Your task to perform on an android device: change the clock style Image 0: 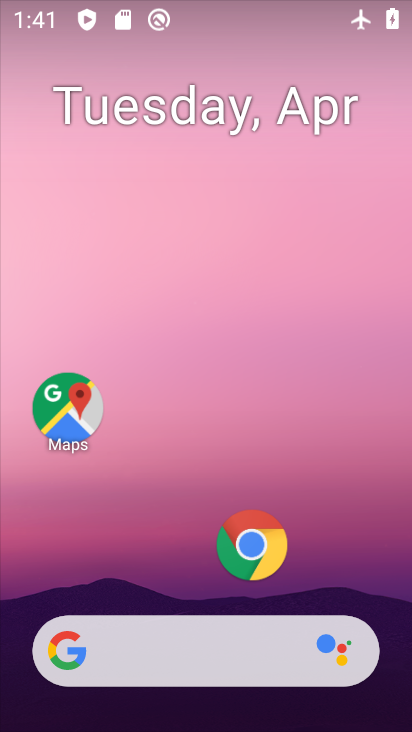
Step 0: drag from (167, 569) to (271, 227)
Your task to perform on an android device: change the clock style Image 1: 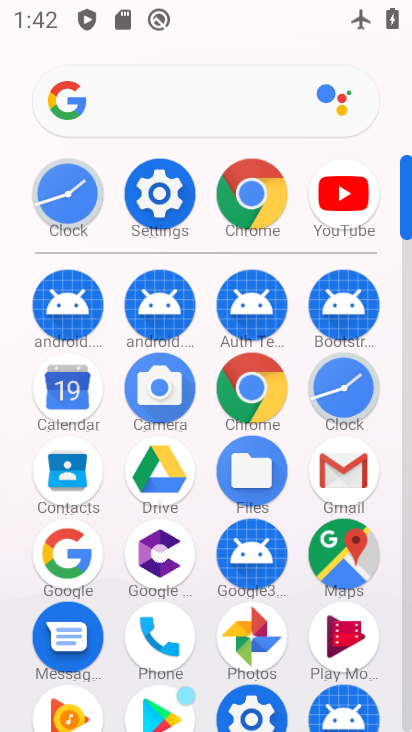
Step 1: click (342, 386)
Your task to perform on an android device: change the clock style Image 2: 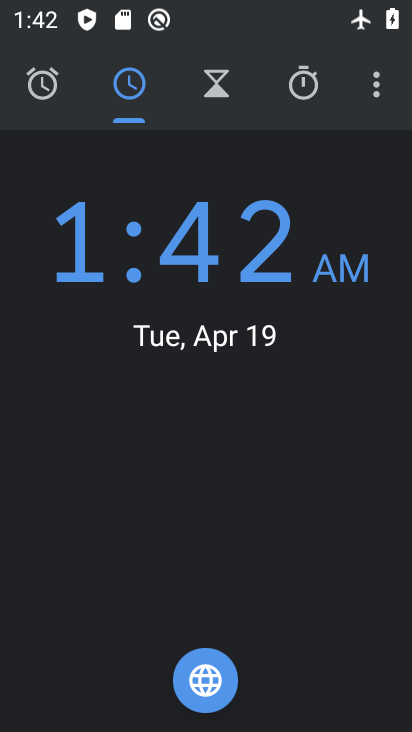
Step 2: click (381, 90)
Your task to perform on an android device: change the clock style Image 3: 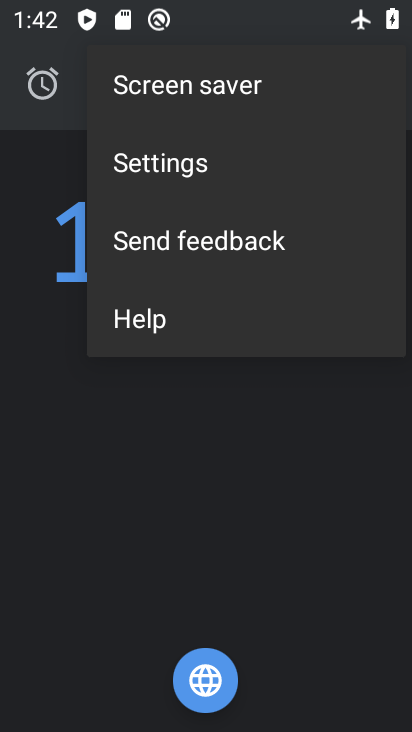
Step 3: click (230, 164)
Your task to perform on an android device: change the clock style Image 4: 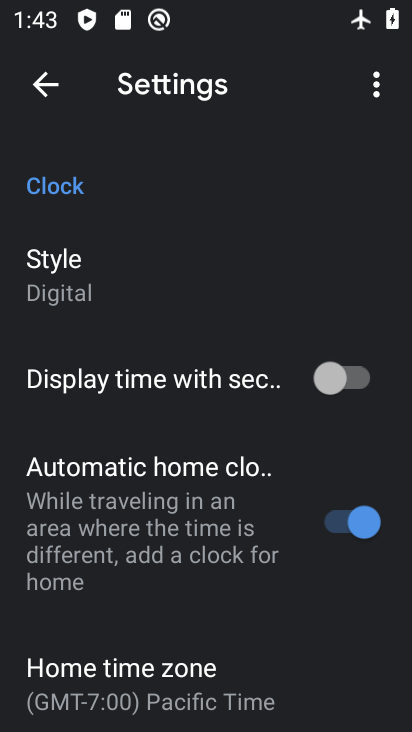
Step 4: task complete